Your task to perform on an android device: refresh tabs in the chrome app Image 0: 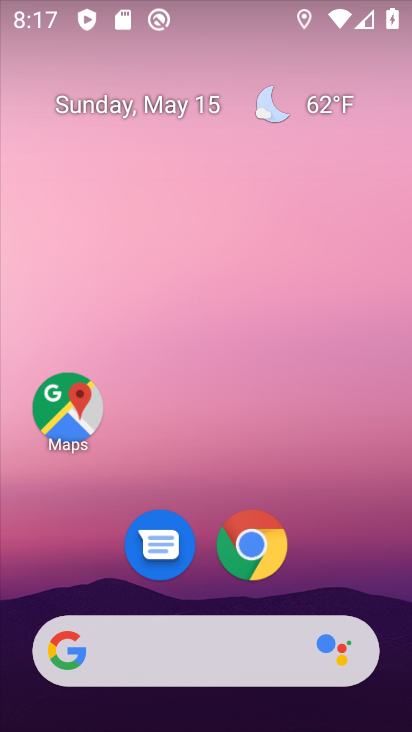
Step 0: click (301, 414)
Your task to perform on an android device: refresh tabs in the chrome app Image 1: 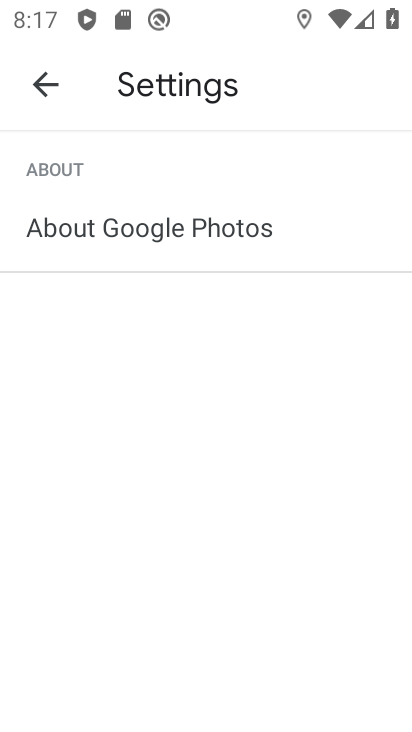
Step 1: press home button
Your task to perform on an android device: refresh tabs in the chrome app Image 2: 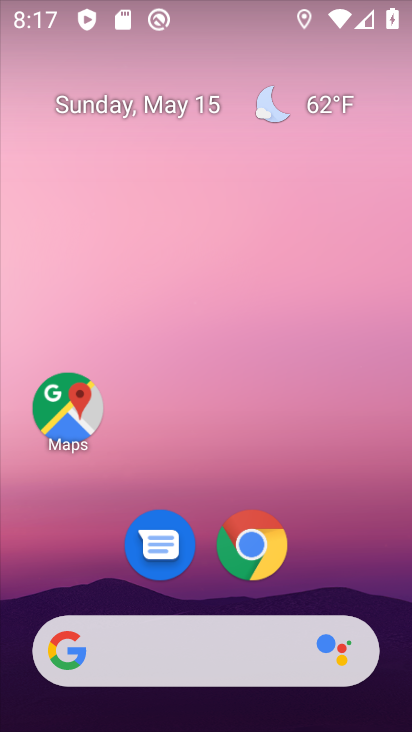
Step 2: drag from (297, 594) to (271, 33)
Your task to perform on an android device: refresh tabs in the chrome app Image 3: 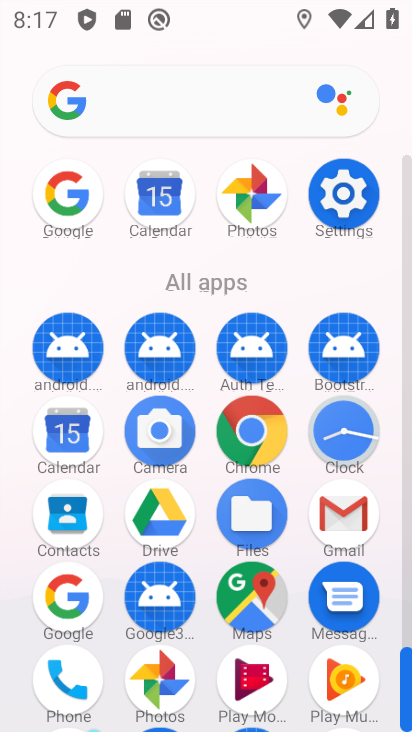
Step 3: click (63, 430)
Your task to perform on an android device: refresh tabs in the chrome app Image 4: 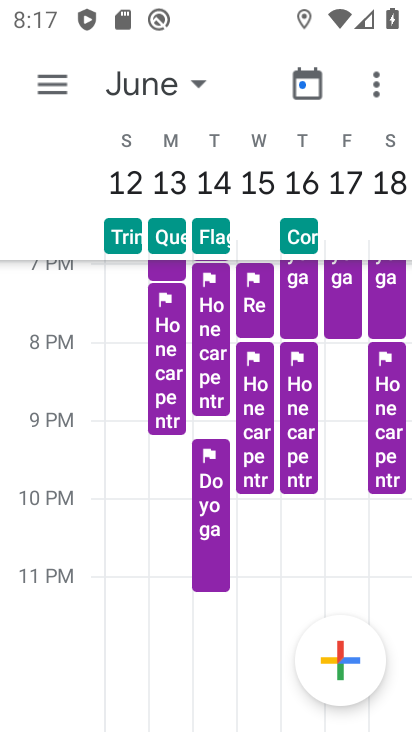
Step 4: press home button
Your task to perform on an android device: refresh tabs in the chrome app Image 5: 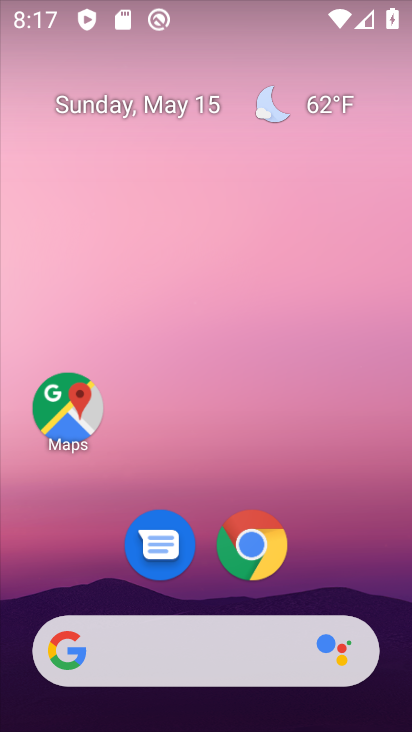
Step 5: click (253, 564)
Your task to perform on an android device: refresh tabs in the chrome app Image 6: 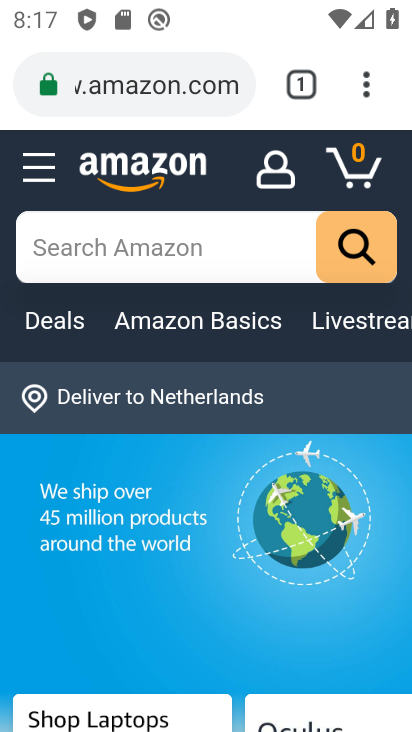
Step 6: click (369, 81)
Your task to perform on an android device: refresh tabs in the chrome app Image 7: 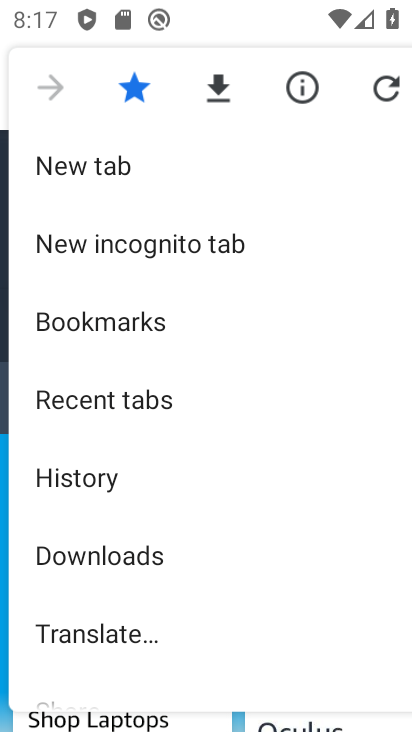
Step 7: click (397, 97)
Your task to perform on an android device: refresh tabs in the chrome app Image 8: 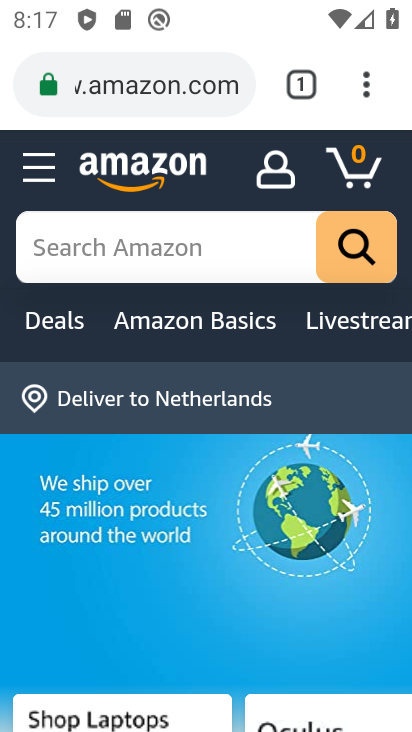
Step 8: task complete